Your task to perform on an android device: turn on notifications settings in the gmail app Image 0: 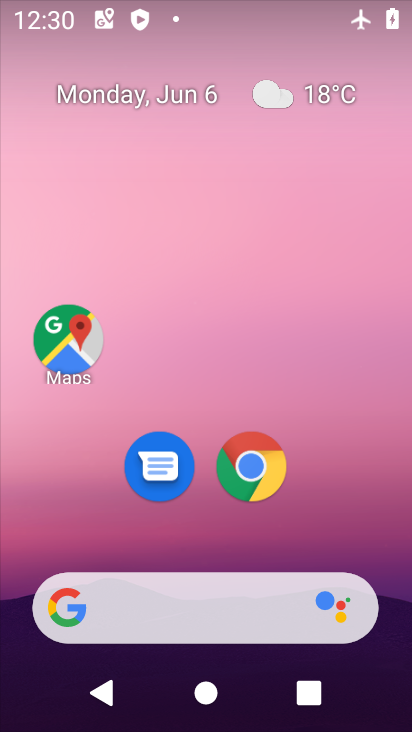
Step 0: drag from (344, 522) to (219, 38)
Your task to perform on an android device: turn on notifications settings in the gmail app Image 1: 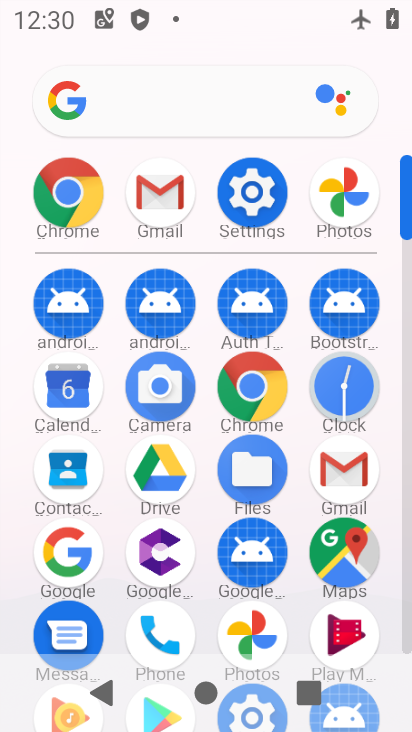
Step 1: drag from (1, 630) to (24, 259)
Your task to perform on an android device: turn on notifications settings in the gmail app Image 2: 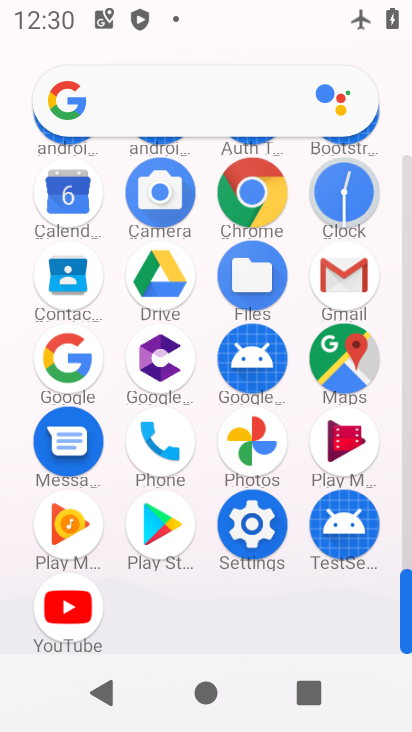
Step 2: click (341, 277)
Your task to perform on an android device: turn on notifications settings in the gmail app Image 3: 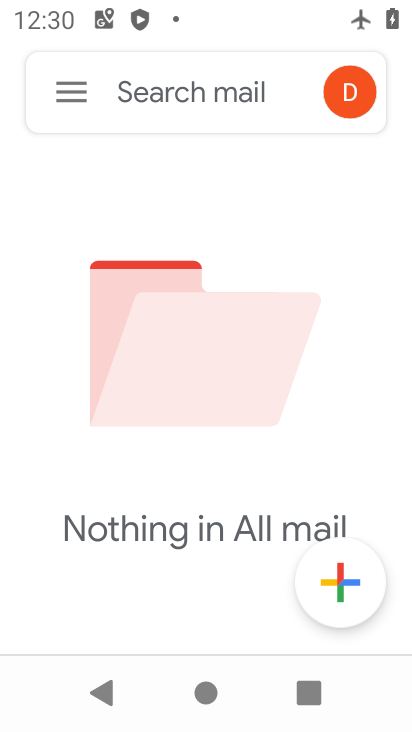
Step 3: click (55, 94)
Your task to perform on an android device: turn on notifications settings in the gmail app Image 4: 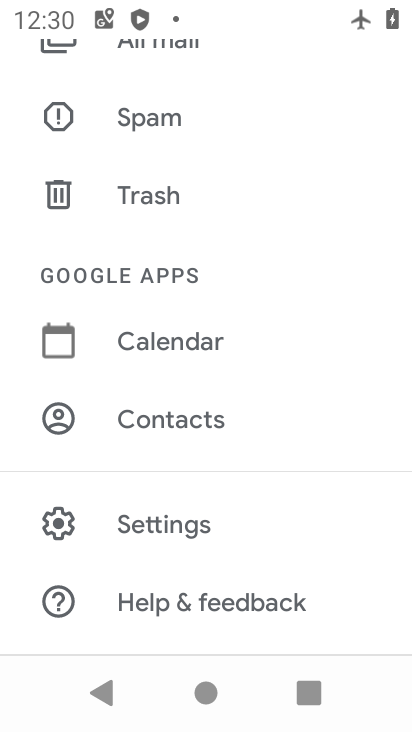
Step 4: drag from (227, 557) to (261, 153)
Your task to perform on an android device: turn on notifications settings in the gmail app Image 5: 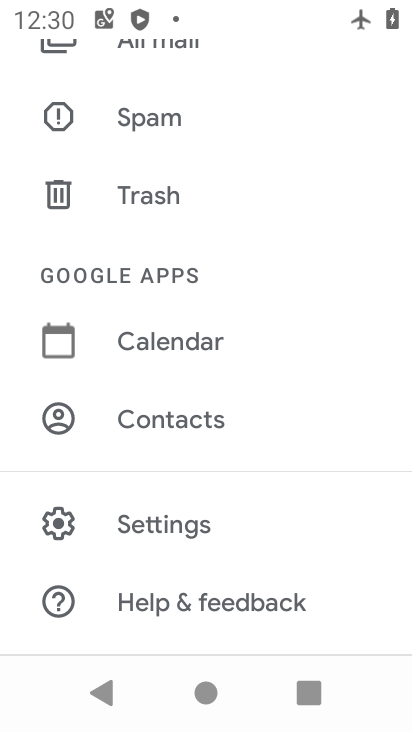
Step 5: click (143, 517)
Your task to perform on an android device: turn on notifications settings in the gmail app Image 6: 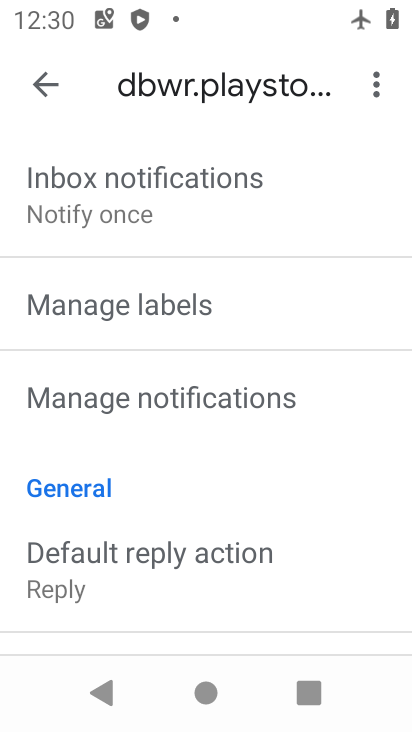
Step 6: click (152, 400)
Your task to perform on an android device: turn on notifications settings in the gmail app Image 7: 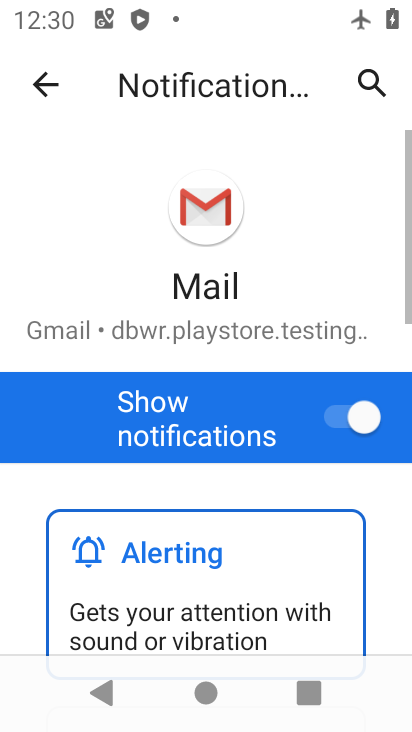
Step 7: task complete